Your task to perform on an android device: turn off notifications in google photos Image 0: 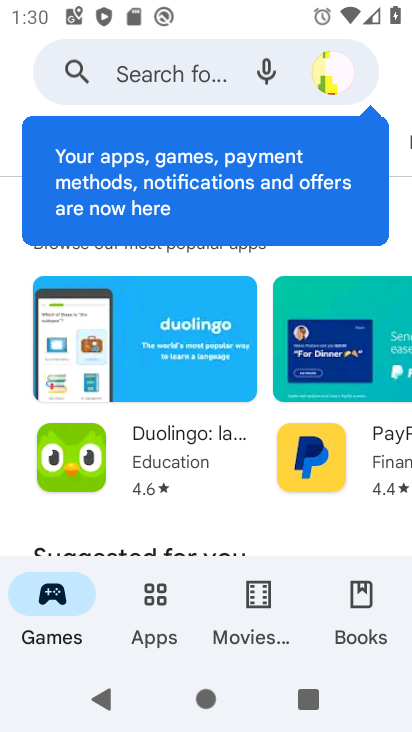
Step 0: press home button
Your task to perform on an android device: turn off notifications in google photos Image 1: 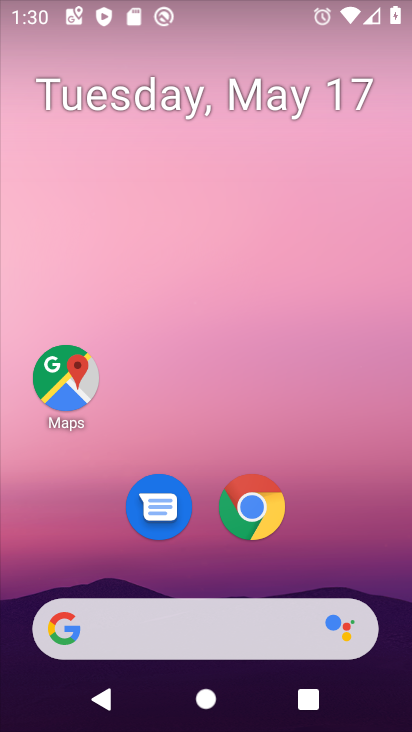
Step 1: drag from (289, 502) to (333, 257)
Your task to perform on an android device: turn off notifications in google photos Image 2: 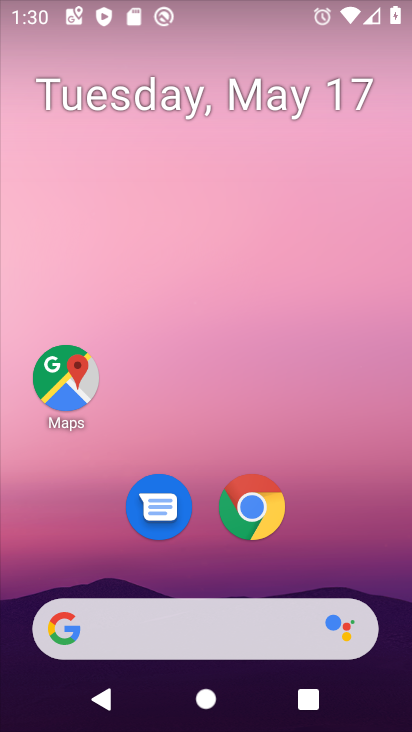
Step 2: drag from (258, 527) to (258, 238)
Your task to perform on an android device: turn off notifications in google photos Image 3: 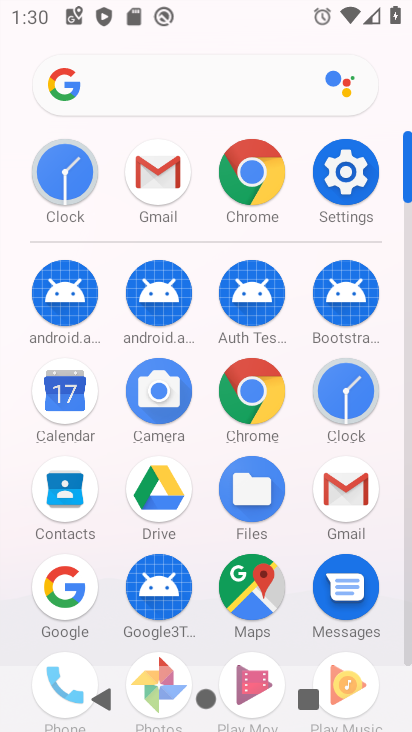
Step 3: drag from (158, 631) to (236, 279)
Your task to perform on an android device: turn off notifications in google photos Image 4: 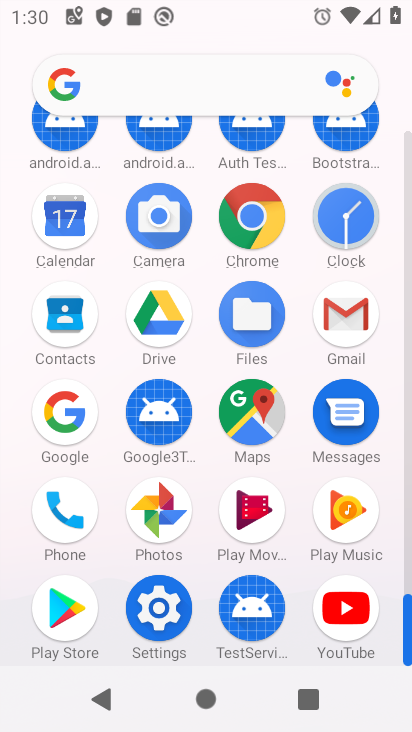
Step 4: click (156, 508)
Your task to perform on an android device: turn off notifications in google photos Image 5: 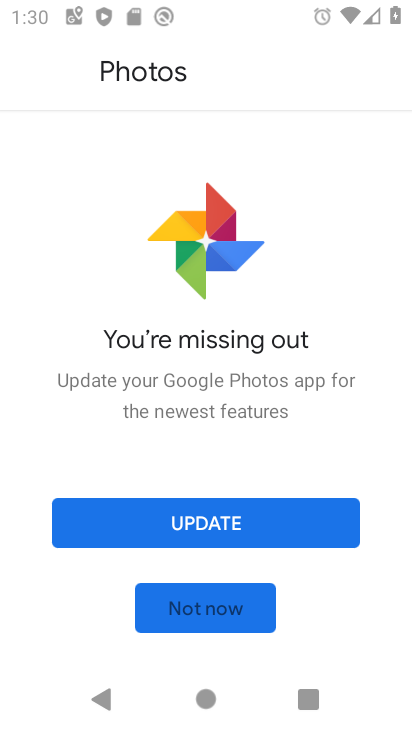
Step 5: click (303, 418)
Your task to perform on an android device: turn off notifications in google photos Image 6: 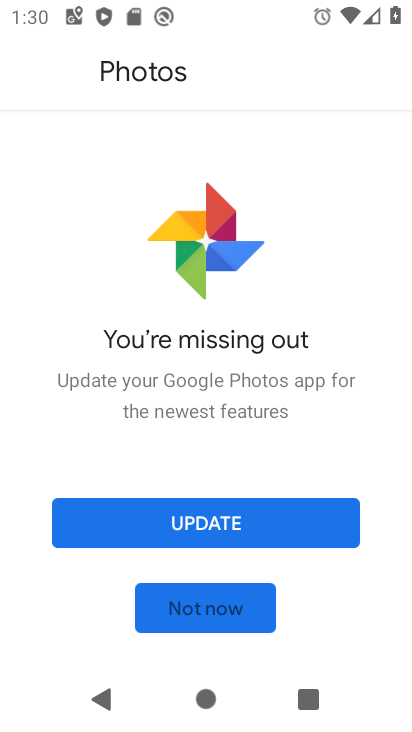
Step 6: click (220, 606)
Your task to perform on an android device: turn off notifications in google photos Image 7: 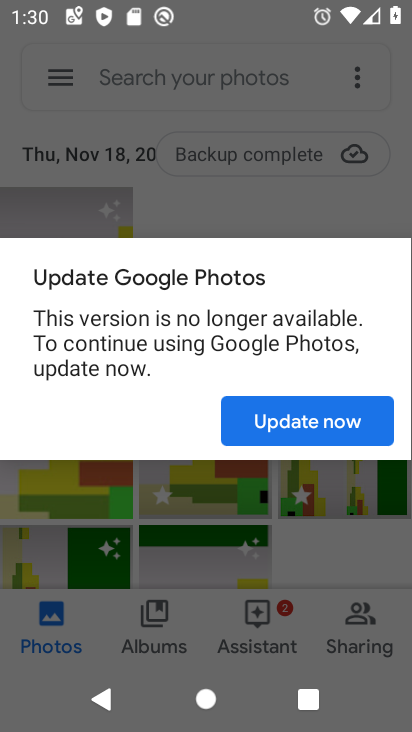
Step 7: click (269, 421)
Your task to perform on an android device: turn off notifications in google photos Image 8: 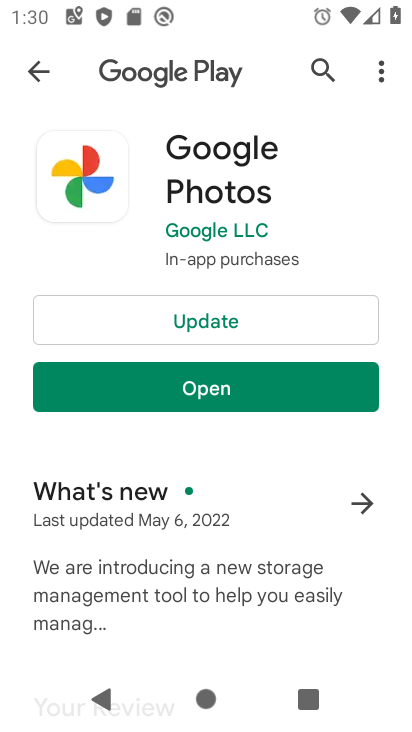
Step 8: press back button
Your task to perform on an android device: turn off notifications in google photos Image 9: 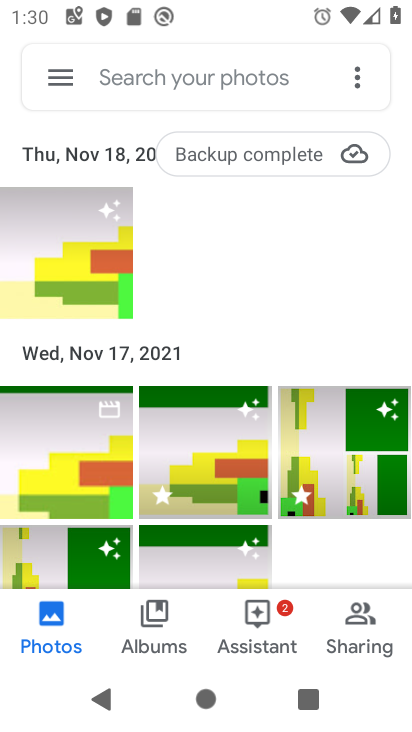
Step 9: click (55, 68)
Your task to perform on an android device: turn off notifications in google photos Image 10: 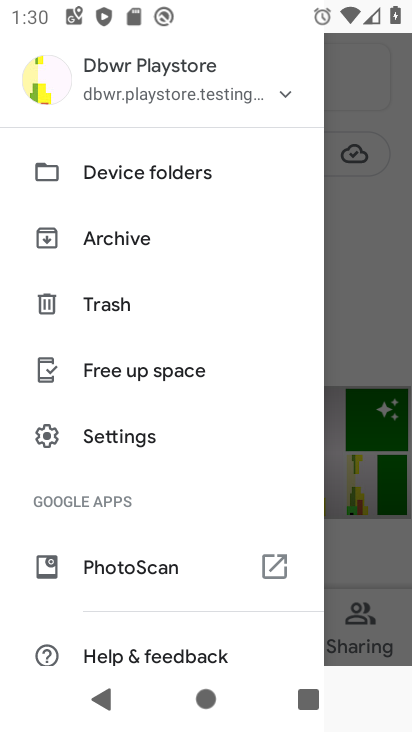
Step 10: click (157, 427)
Your task to perform on an android device: turn off notifications in google photos Image 11: 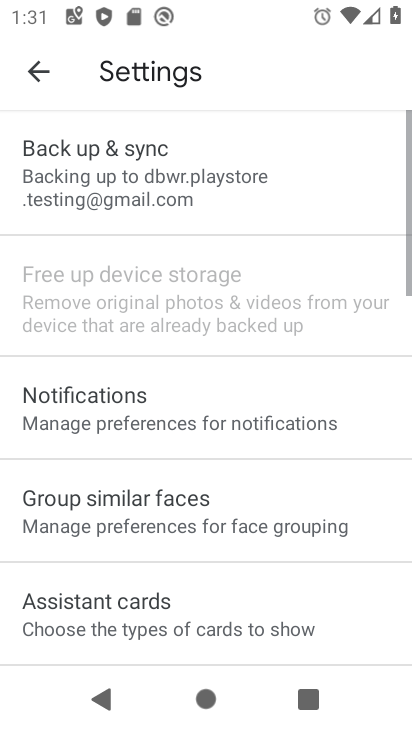
Step 11: click (195, 383)
Your task to perform on an android device: turn off notifications in google photos Image 12: 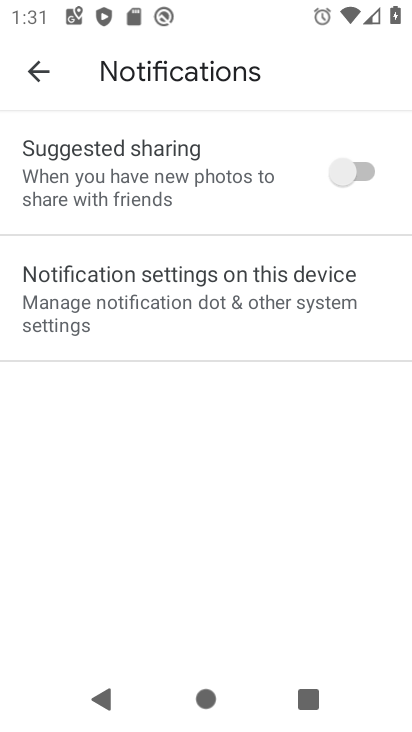
Step 12: click (220, 267)
Your task to perform on an android device: turn off notifications in google photos Image 13: 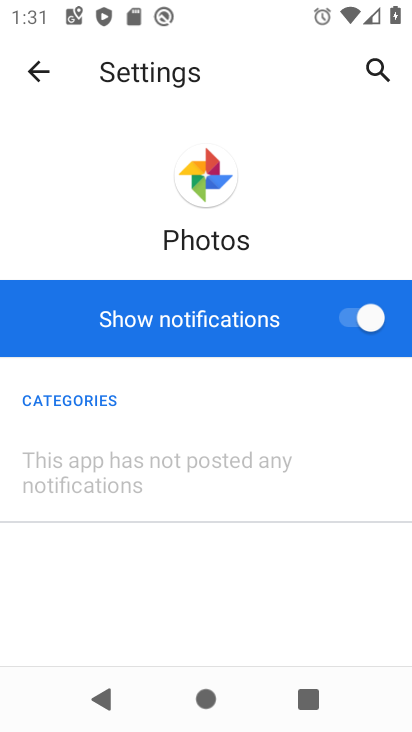
Step 13: click (361, 296)
Your task to perform on an android device: turn off notifications in google photos Image 14: 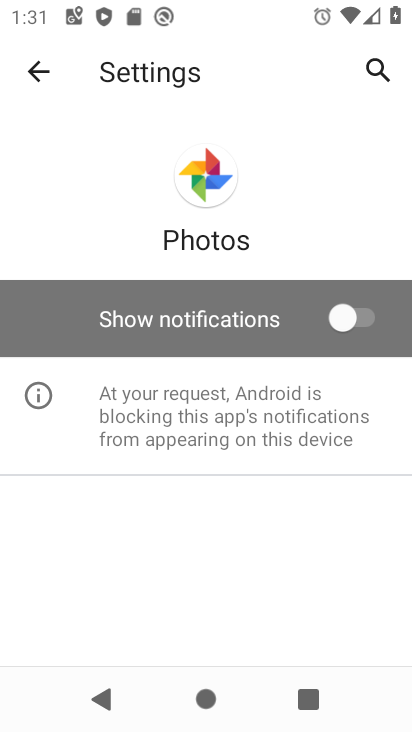
Step 14: task complete